Your task to perform on an android device: open app "Chime – Mobile Banking" (install if not already installed) and enter user name: "bullfrog@inbox.com" and password: "breaker" Image 0: 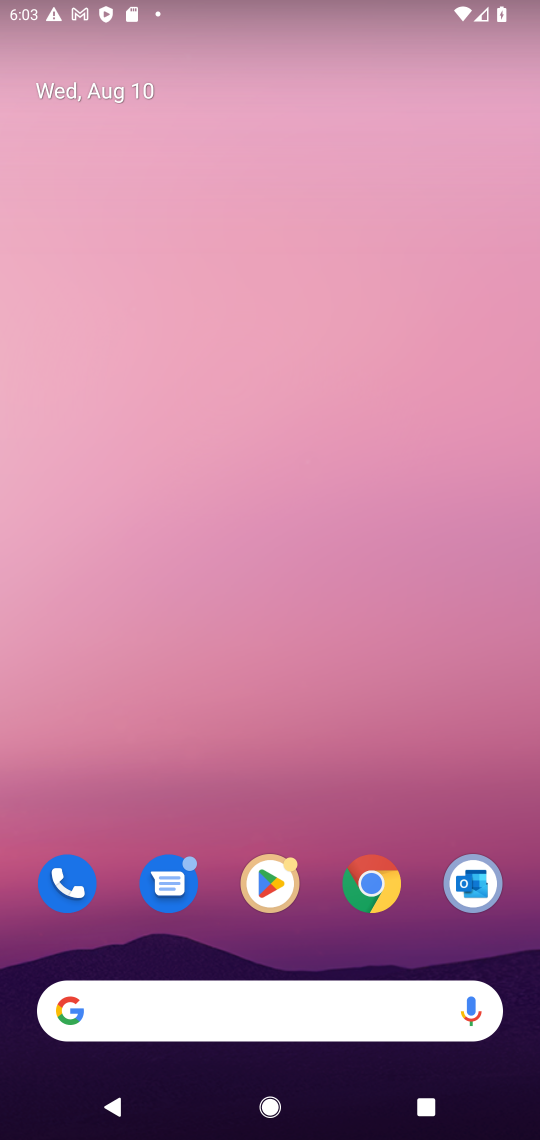
Step 0: click (259, 916)
Your task to perform on an android device: open app "Chime – Mobile Banking" (install if not already installed) and enter user name: "bullfrog@inbox.com" and password: "breaker" Image 1: 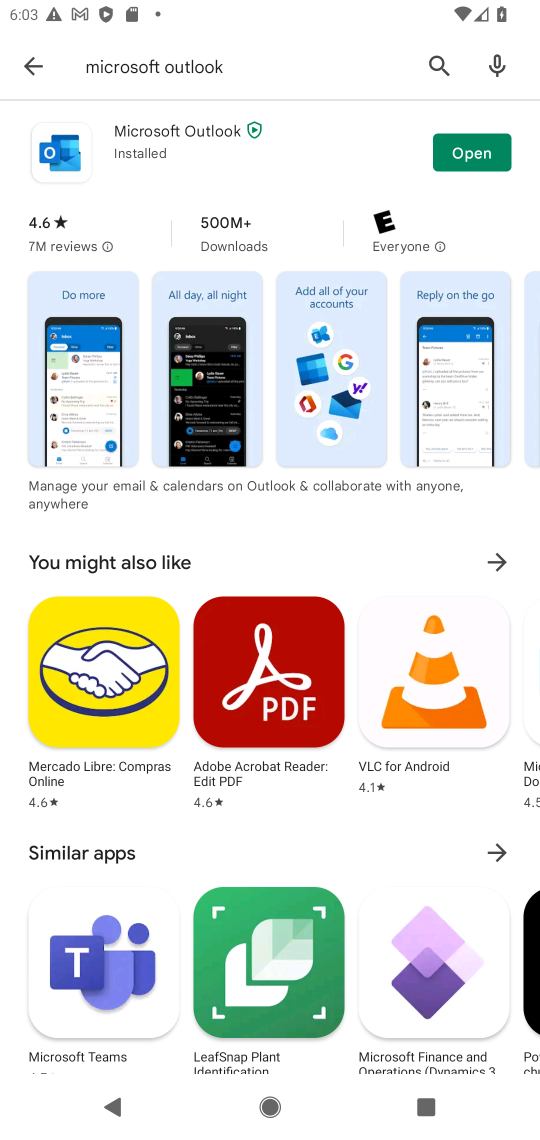
Step 1: click (428, 63)
Your task to perform on an android device: open app "Chime – Mobile Banking" (install if not already installed) and enter user name: "bullfrog@inbox.com" and password: "breaker" Image 2: 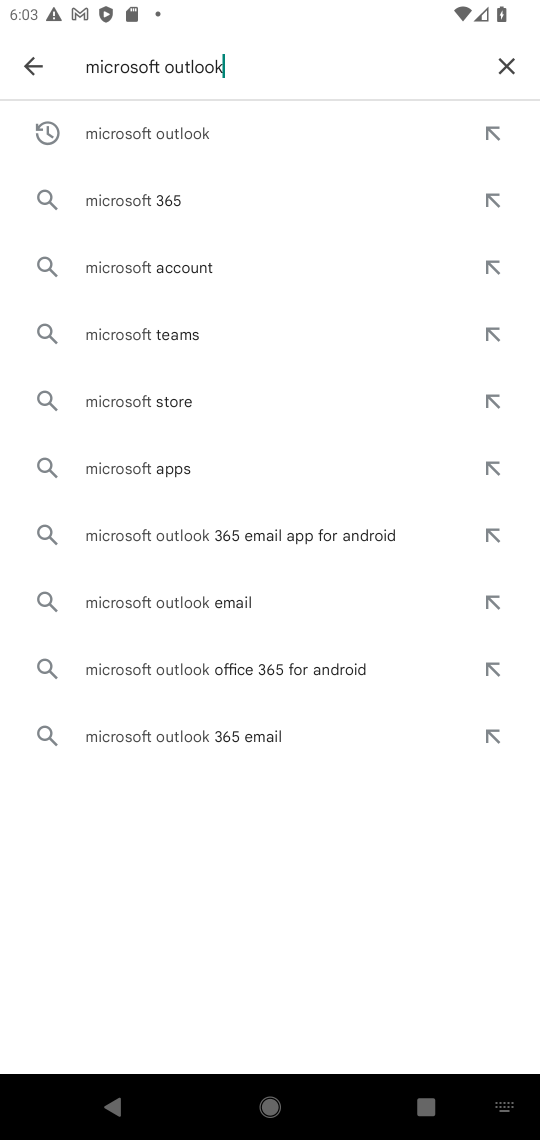
Step 2: click (498, 69)
Your task to perform on an android device: open app "Chime – Mobile Banking" (install if not already installed) and enter user name: "bullfrog@inbox.com" and password: "breaker" Image 3: 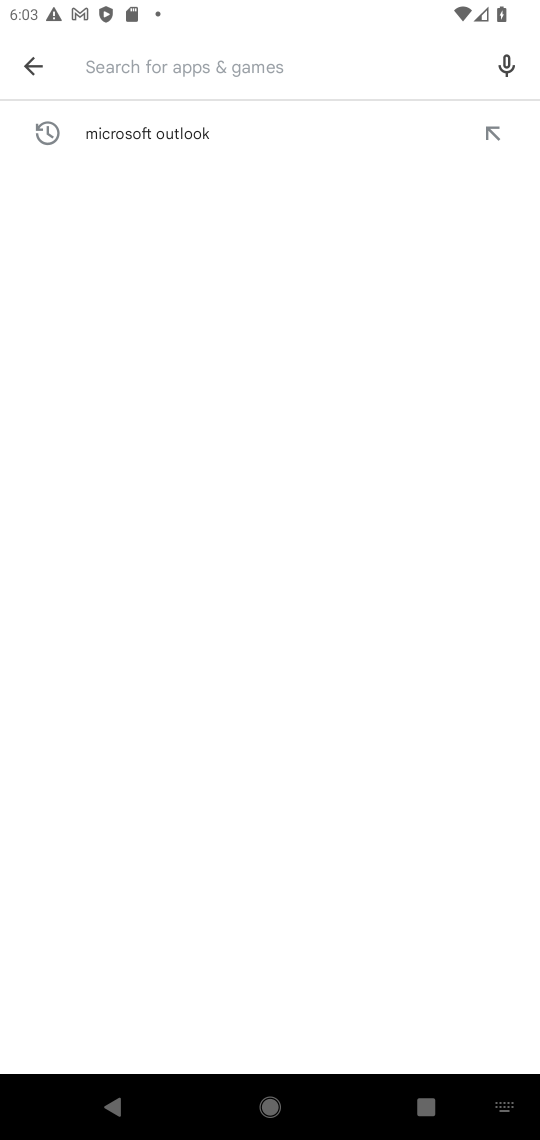
Step 3: type "Chime – Mobile Banking"
Your task to perform on an android device: open app "Chime – Mobile Banking" (install if not already installed) and enter user name: "bullfrog@inbox.com" and password: "breaker" Image 4: 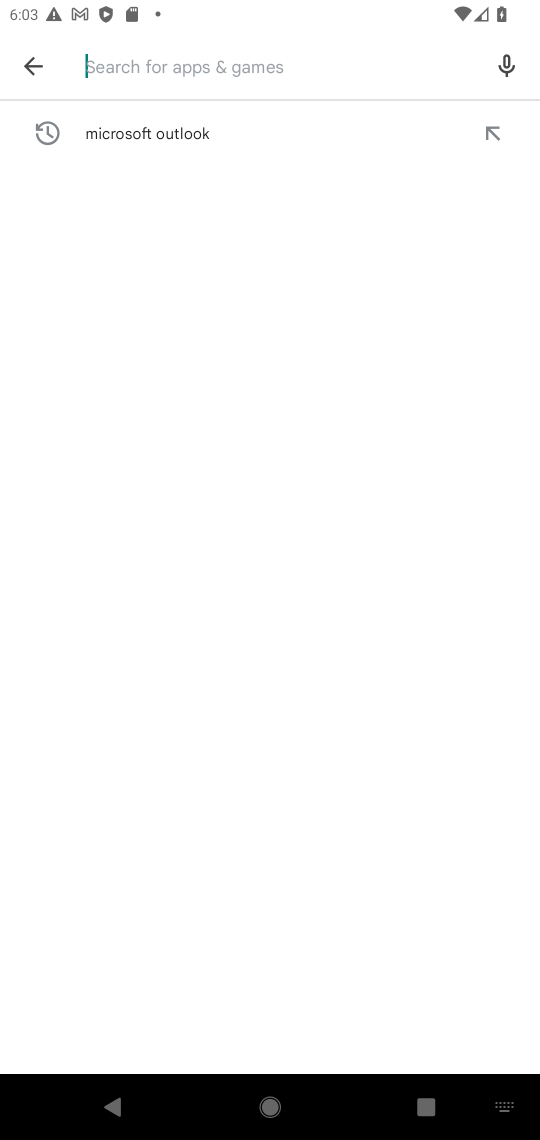
Step 4: type ""
Your task to perform on an android device: open app "Chime – Mobile Banking" (install if not already installed) and enter user name: "bullfrog@inbox.com" and password: "breaker" Image 5: 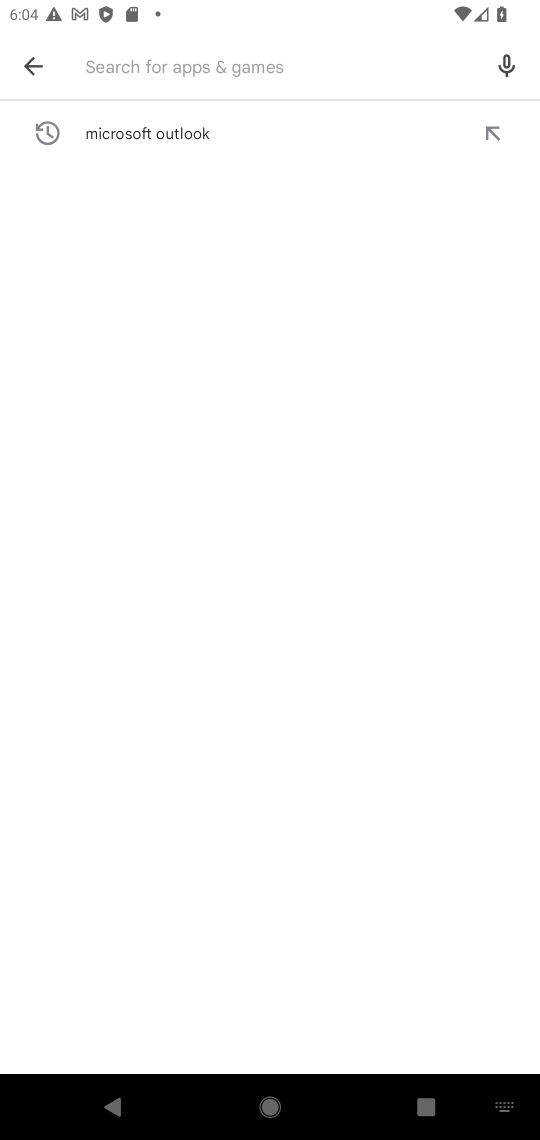
Step 5: click (242, 61)
Your task to perform on an android device: open app "Chime – Mobile Banking" (install if not already installed) and enter user name: "bullfrog@inbox.com" and password: "breaker" Image 6: 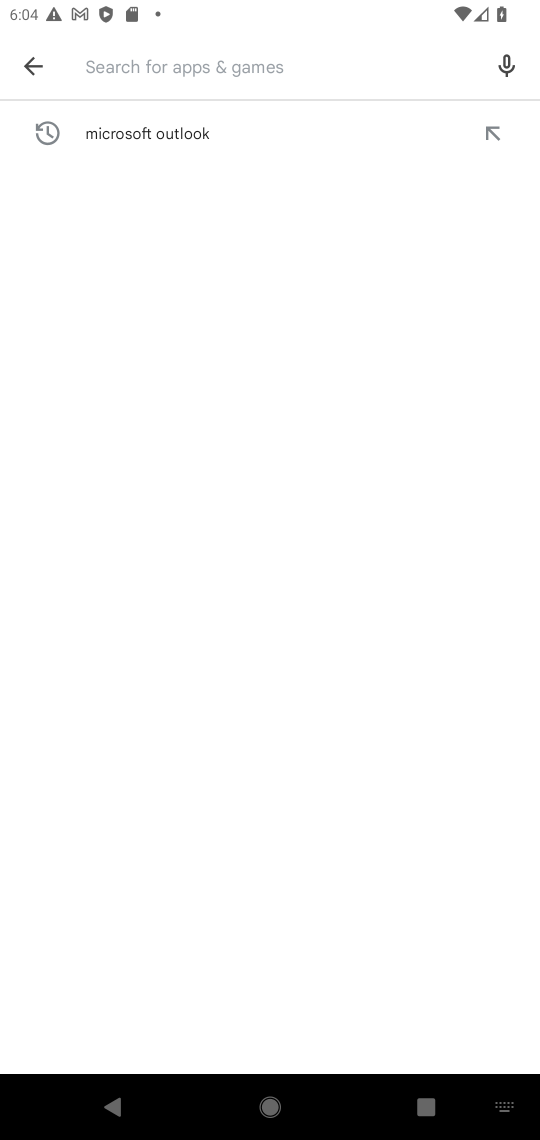
Step 6: click (493, 1101)
Your task to perform on an android device: open app "Chime – Mobile Banking" (install if not already installed) and enter user name: "bullfrog@inbox.com" and password: "breaker" Image 7: 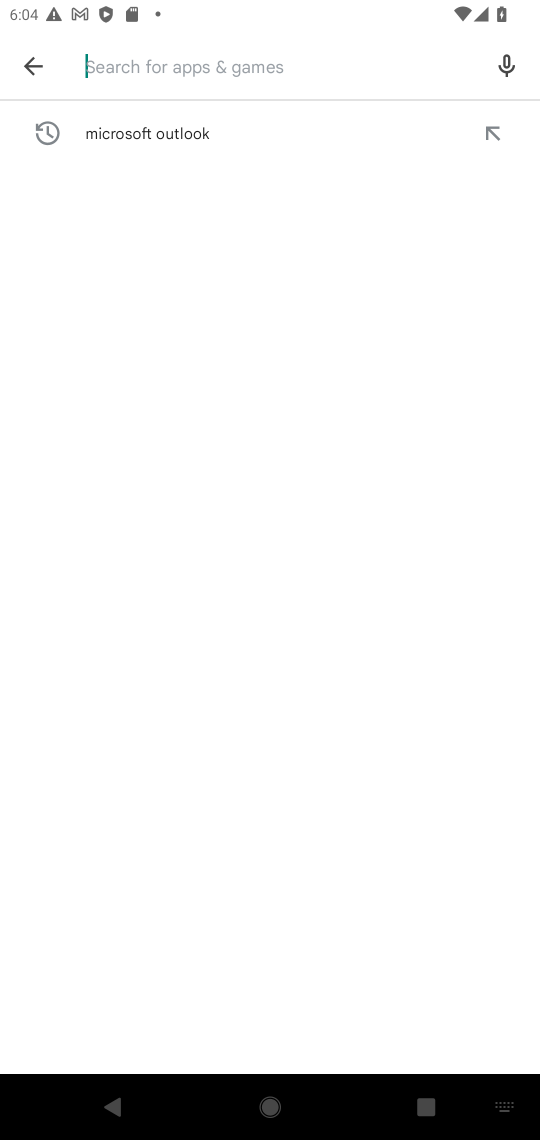
Step 7: type "Chime – Mobile Banking"
Your task to perform on an android device: open app "Chime – Mobile Banking" (install if not already installed) and enter user name: "bullfrog@inbox.com" and password: "breaker" Image 8: 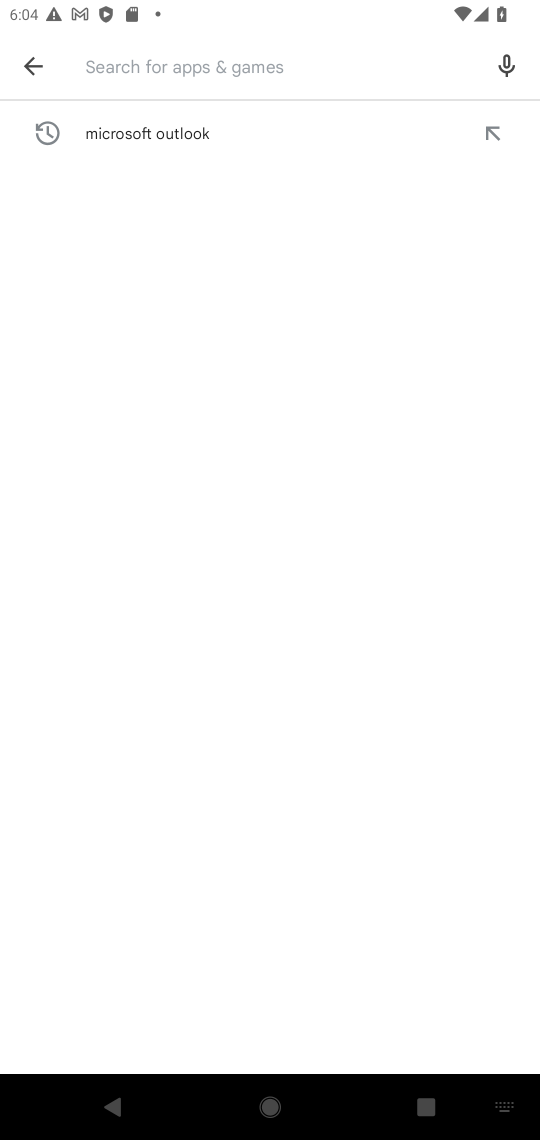
Step 8: type ""
Your task to perform on an android device: open app "Chime – Mobile Banking" (install if not already installed) and enter user name: "bullfrog@inbox.com" and password: "breaker" Image 9: 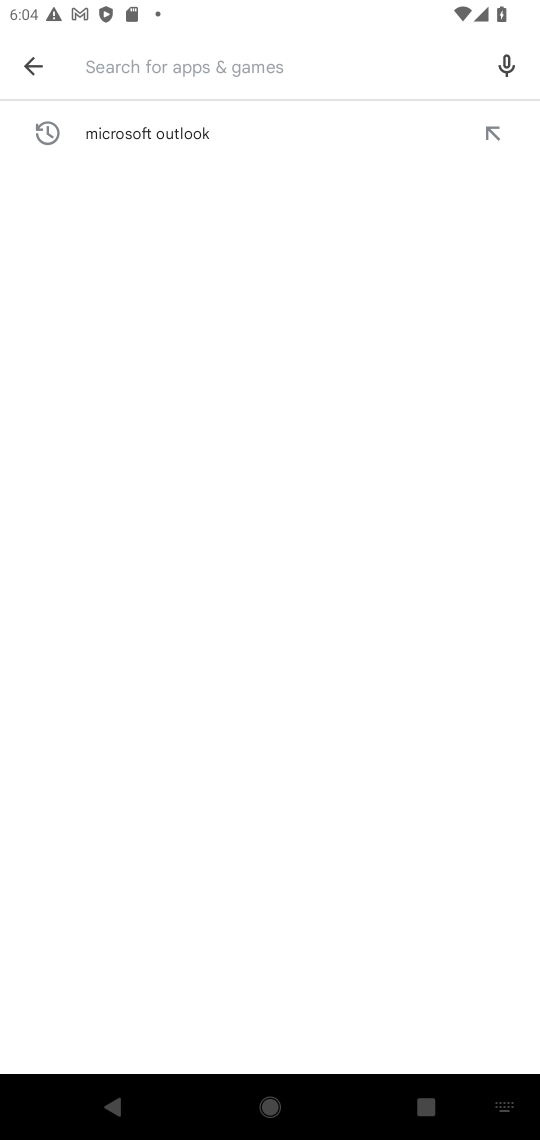
Step 9: drag from (526, 1086) to (420, 454)
Your task to perform on an android device: open app "Chime – Mobile Banking" (install if not already installed) and enter user name: "bullfrog@inbox.com" and password: "breaker" Image 10: 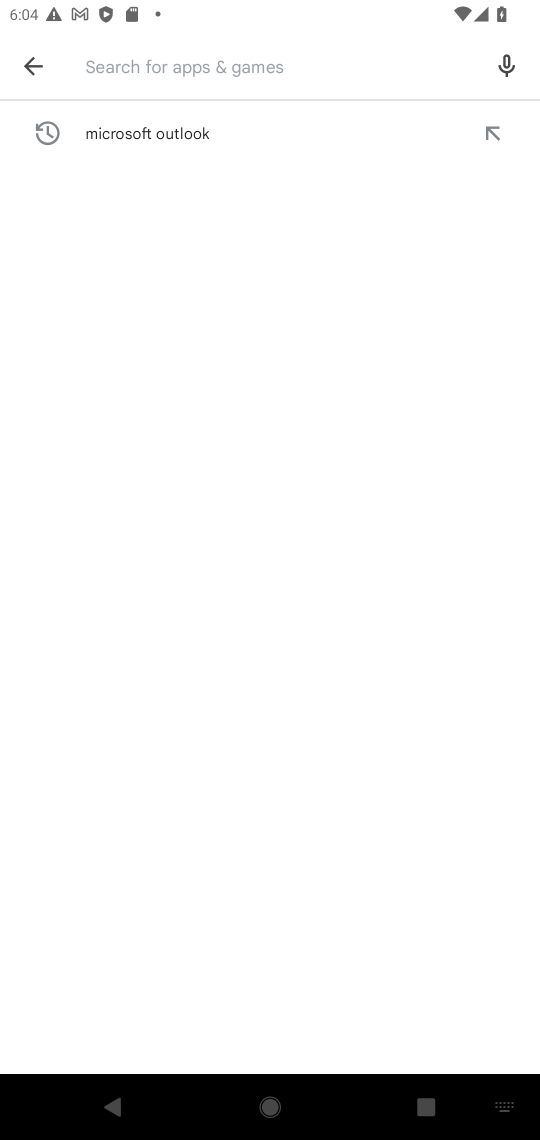
Step 10: click (116, 67)
Your task to perform on an android device: open app "Chime – Mobile Banking" (install if not already installed) and enter user name: "bullfrog@inbox.com" and password: "breaker" Image 11: 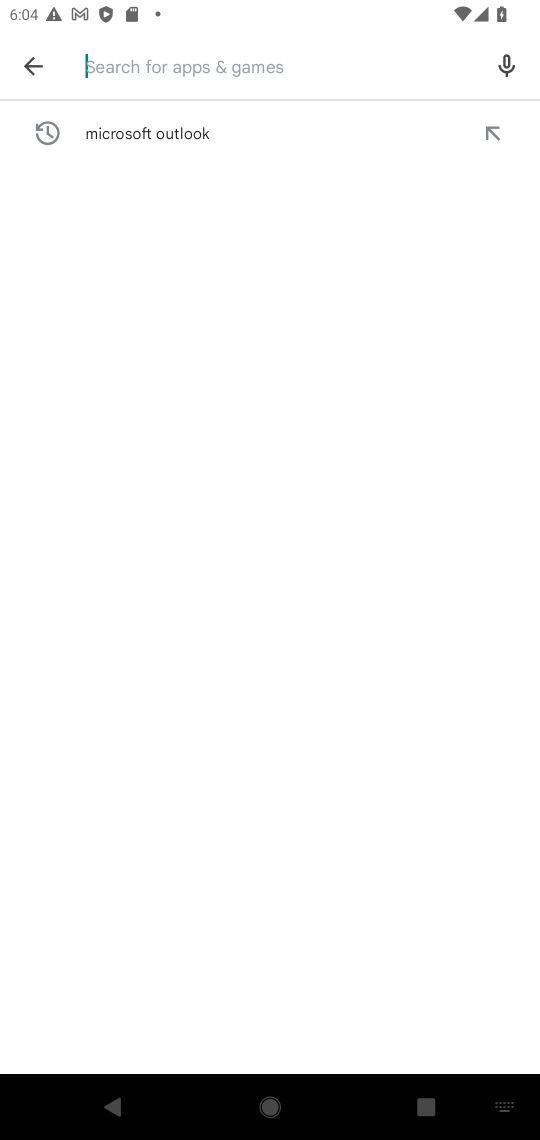
Step 11: type "Chime"
Your task to perform on an android device: open app "Chime – Mobile Banking" (install if not already installed) and enter user name: "bullfrog@inbox.com" and password: "breaker" Image 12: 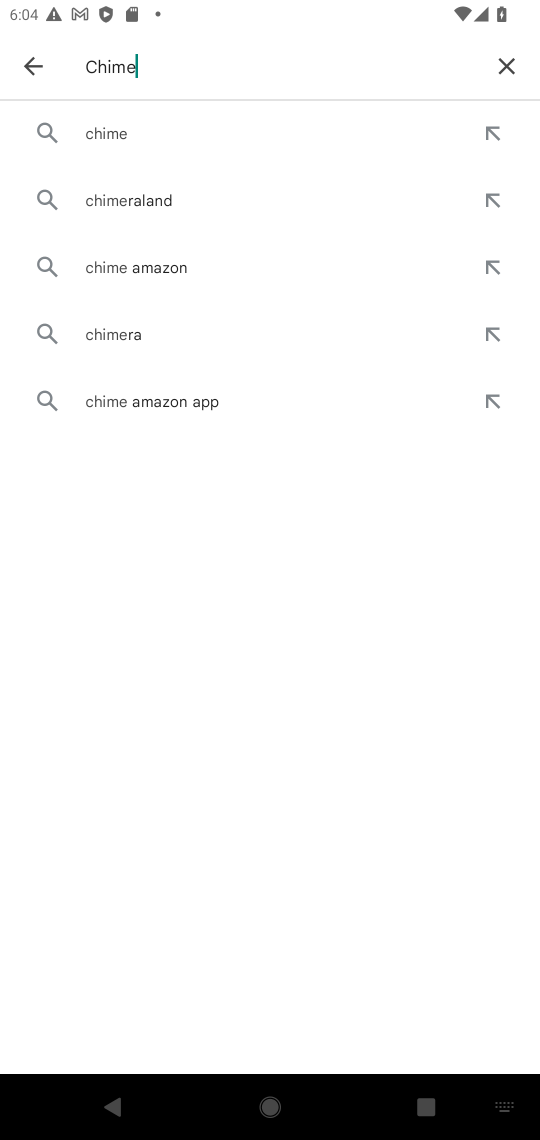
Step 12: click (118, 121)
Your task to perform on an android device: open app "Chime – Mobile Banking" (install if not already installed) and enter user name: "bullfrog@inbox.com" and password: "breaker" Image 13: 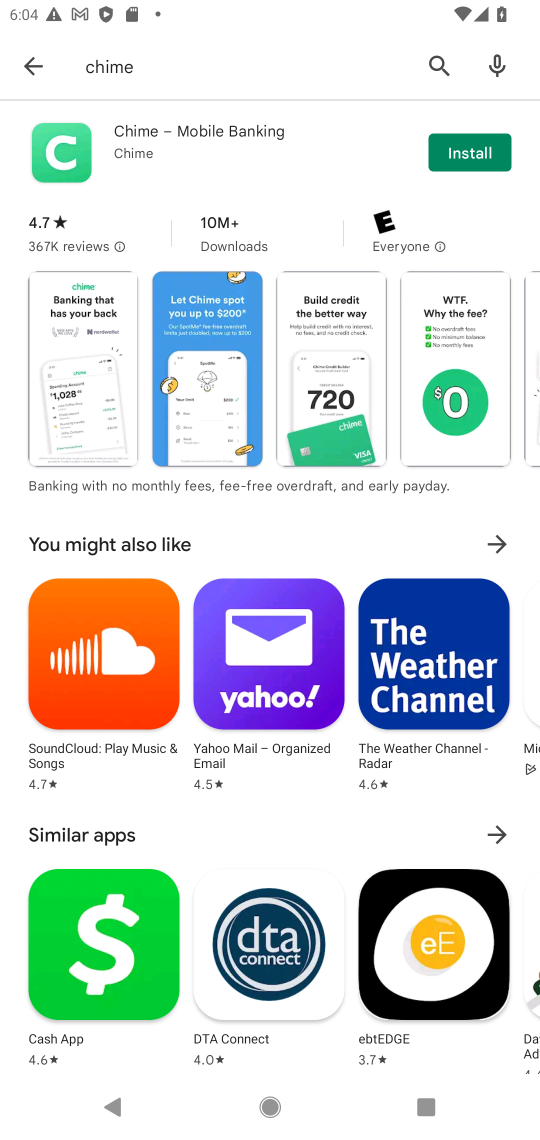
Step 13: click (446, 158)
Your task to perform on an android device: open app "Chime – Mobile Banking" (install if not already installed) and enter user name: "bullfrog@inbox.com" and password: "breaker" Image 14: 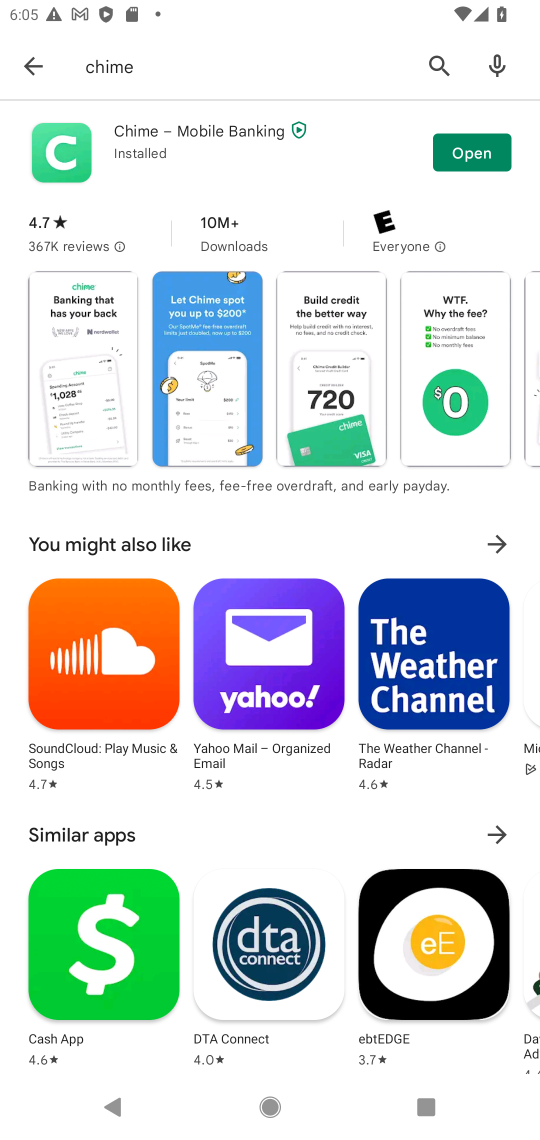
Step 14: click (471, 160)
Your task to perform on an android device: open app "Chime – Mobile Banking" (install if not already installed) and enter user name: "bullfrog@inbox.com" and password: "breaker" Image 15: 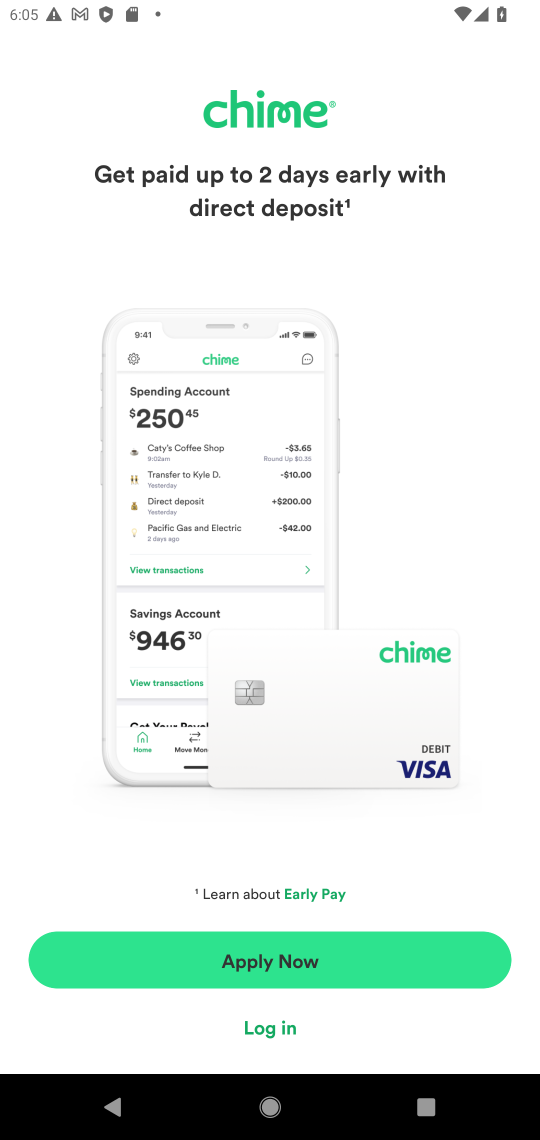
Step 15: task complete